Your task to perform on an android device: Open sound settings Image 0: 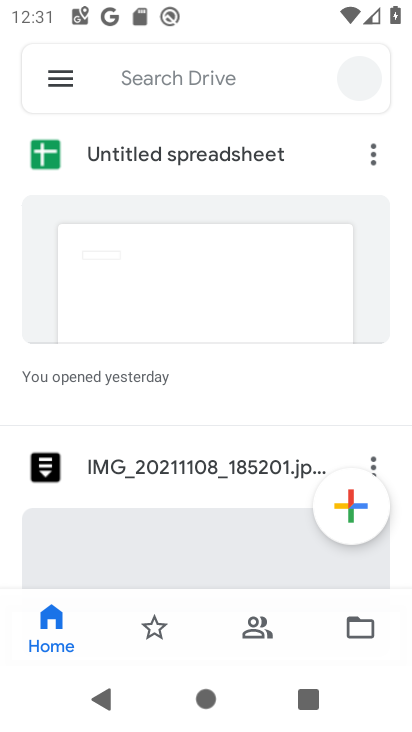
Step 0: press home button
Your task to perform on an android device: Open sound settings Image 1: 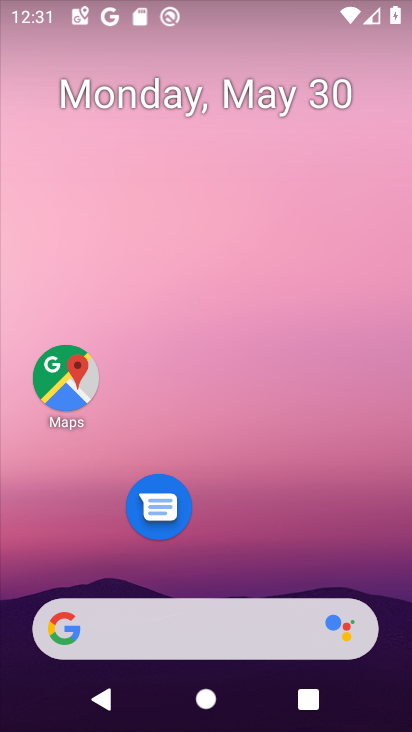
Step 1: drag from (281, 564) to (281, 93)
Your task to perform on an android device: Open sound settings Image 2: 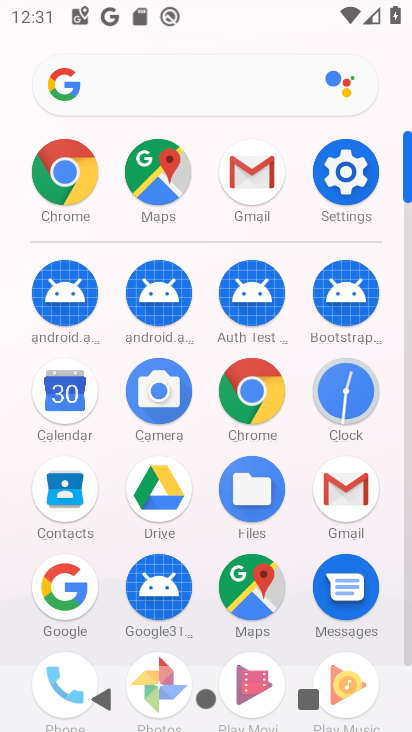
Step 2: click (346, 170)
Your task to perform on an android device: Open sound settings Image 3: 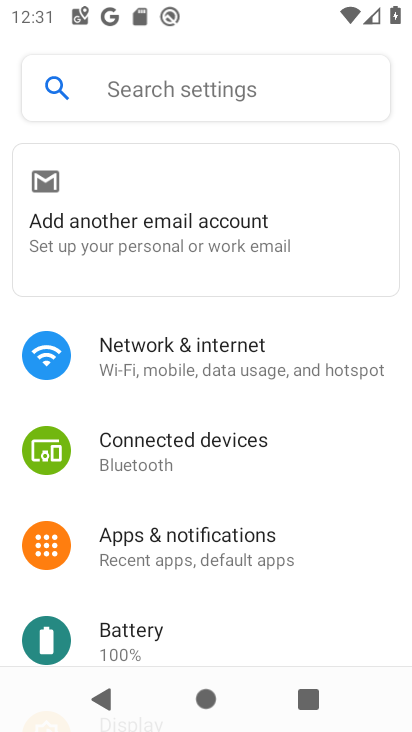
Step 3: drag from (315, 608) to (335, 150)
Your task to perform on an android device: Open sound settings Image 4: 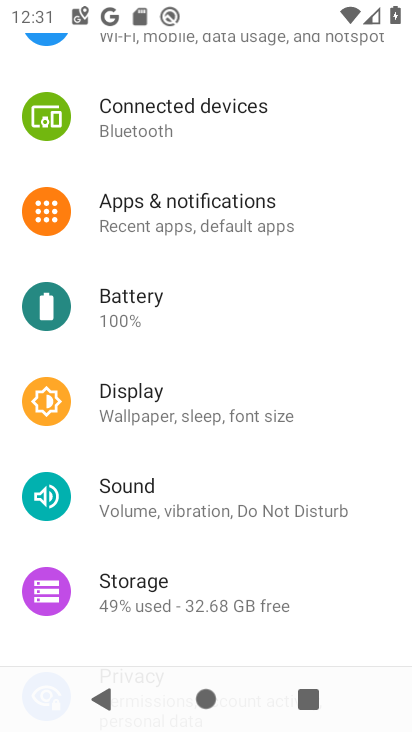
Step 4: click (118, 499)
Your task to perform on an android device: Open sound settings Image 5: 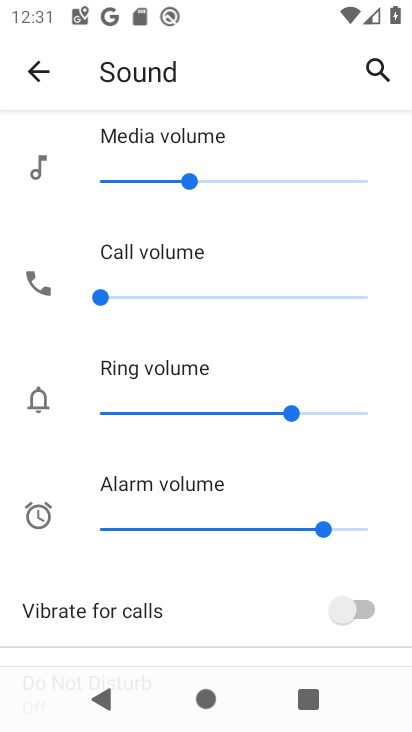
Step 5: task complete